Your task to perform on an android device: Show me the alarms in the clock app Image 0: 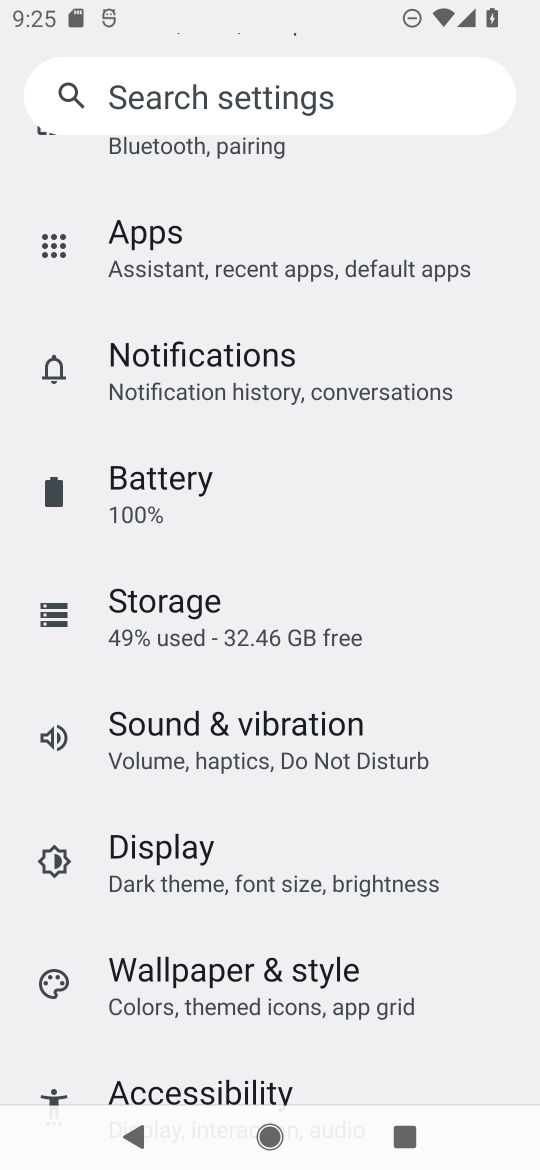
Step 0: press home button
Your task to perform on an android device: Show me the alarms in the clock app Image 1: 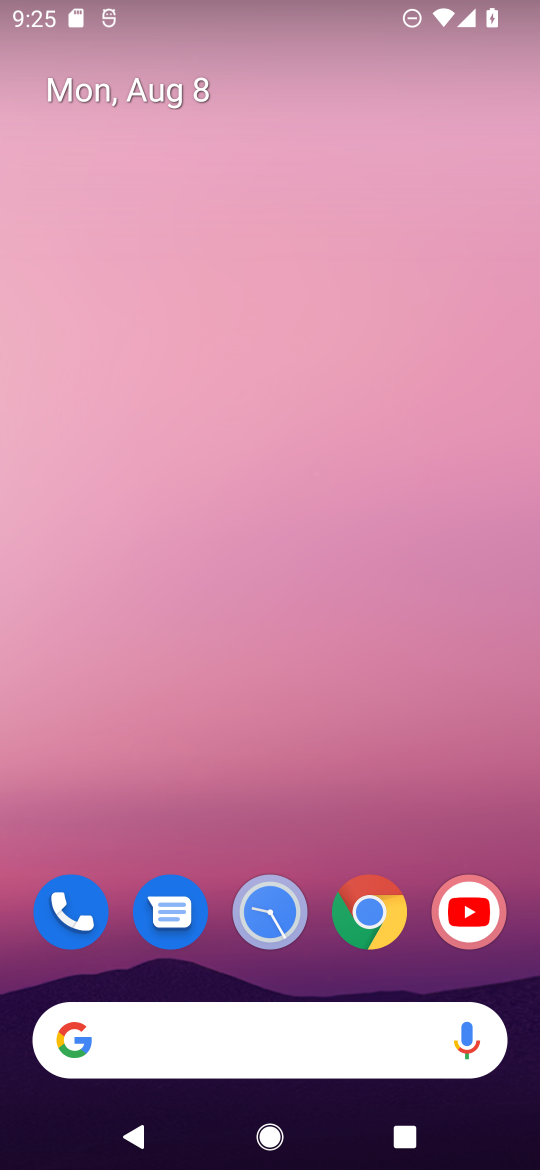
Step 1: drag from (433, 971) to (270, 16)
Your task to perform on an android device: Show me the alarms in the clock app Image 2: 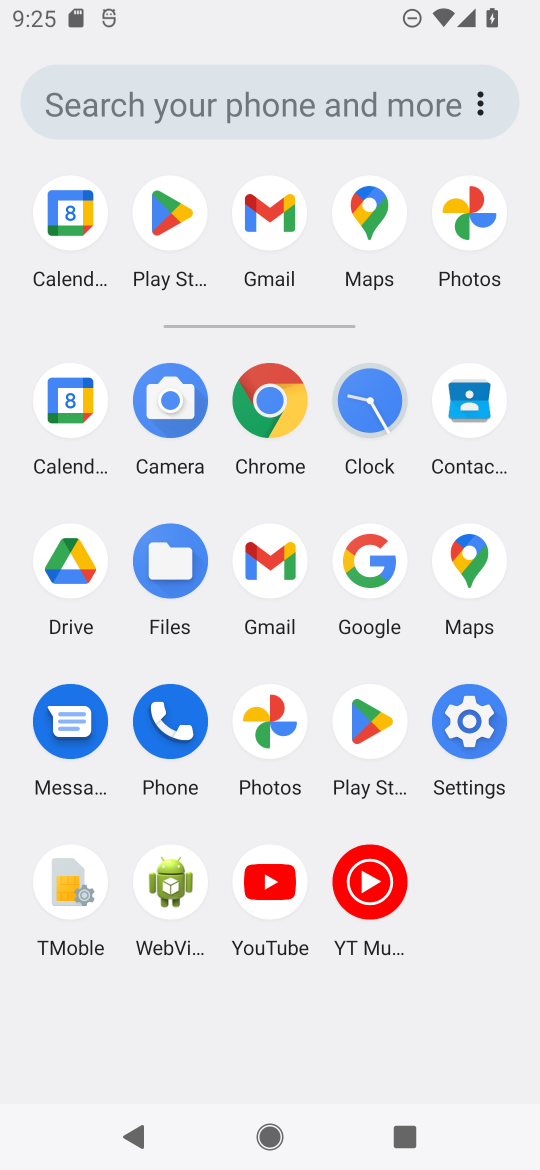
Step 2: click (351, 374)
Your task to perform on an android device: Show me the alarms in the clock app Image 3: 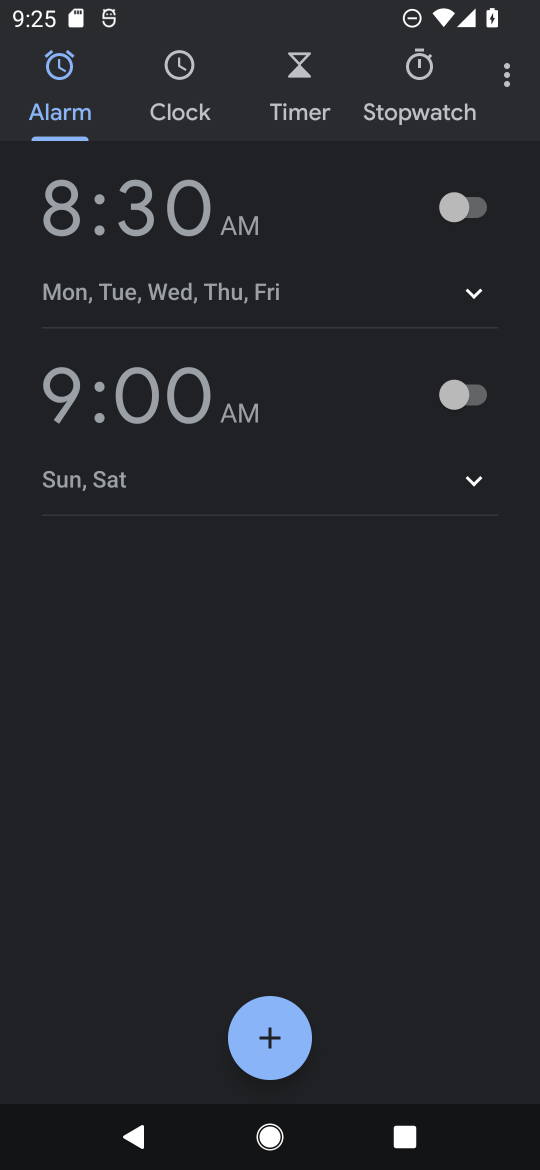
Step 3: task complete